Your task to perform on an android device: see creations saved in the google photos Image 0: 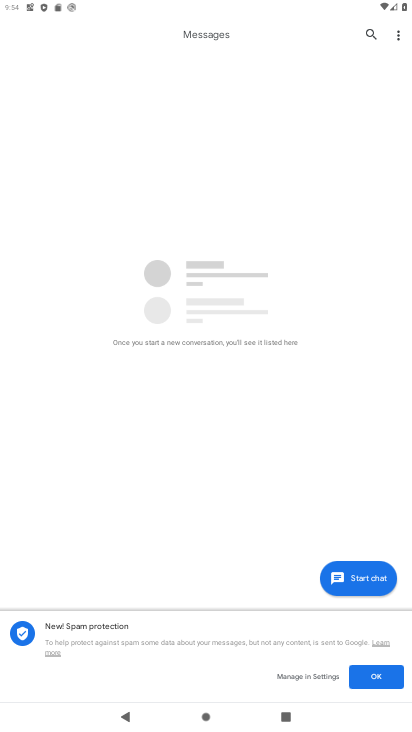
Step 0: press home button
Your task to perform on an android device: see creations saved in the google photos Image 1: 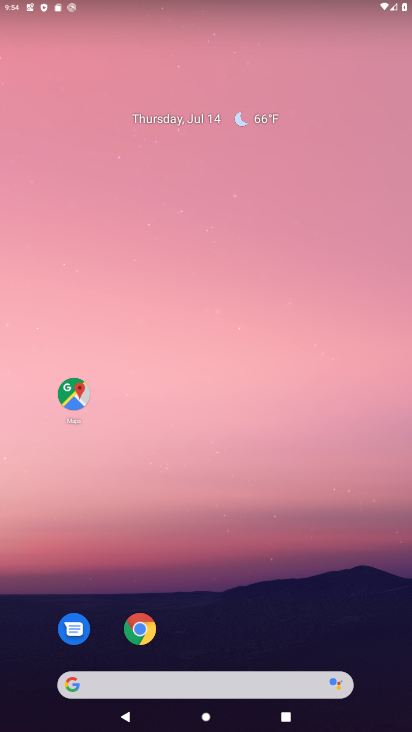
Step 1: drag from (261, 575) to (211, 4)
Your task to perform on an android device: see creations saved in the google photos Image 2: 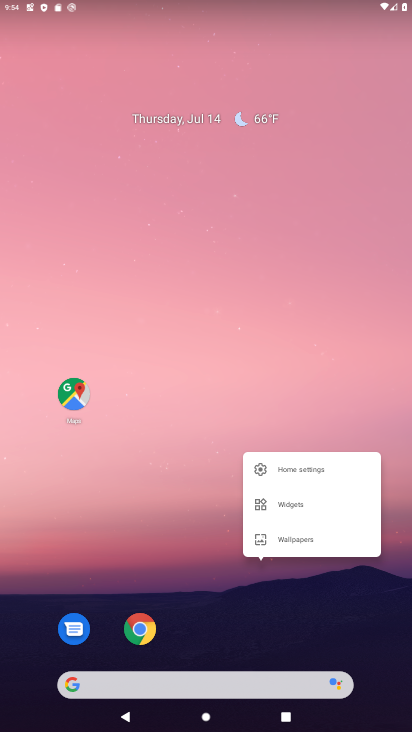
Step 2: drag from (206, 594) to (217, 2)
Your task to perform on an android device: see creations saved in the google photos Image 3: 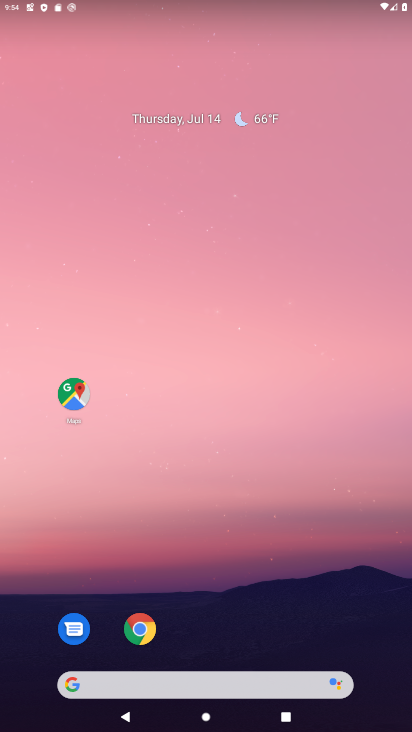
Step 3: drag from (208, 569) to (300, 2)
Your task to perform on an android device: see creations saved in the google photos Image 4: 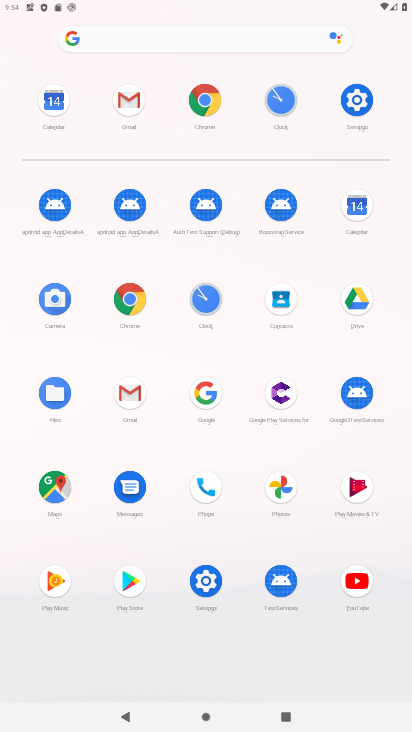
Step 4: click (288, 489)
Your task to perform on an android device: see creations saved in the google photos Image 5: 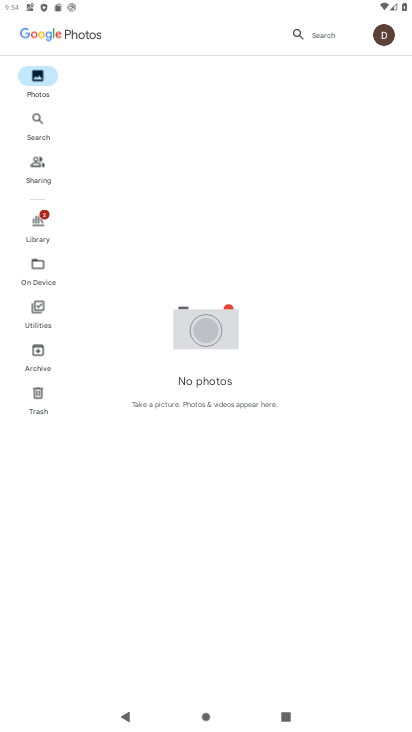
Step 5: click (33, 119)
Your task to perform on an android device: see creations saved in the google photos Image 6: 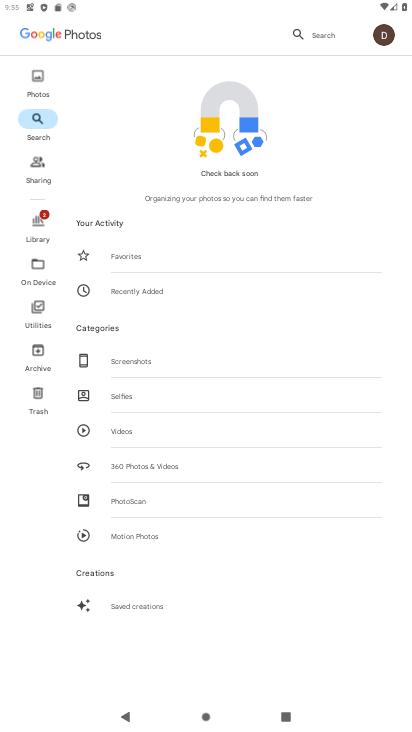
Step 6: click (91, 568)
Your task to perform on an android device: see creations saved in the google photos Image 7: 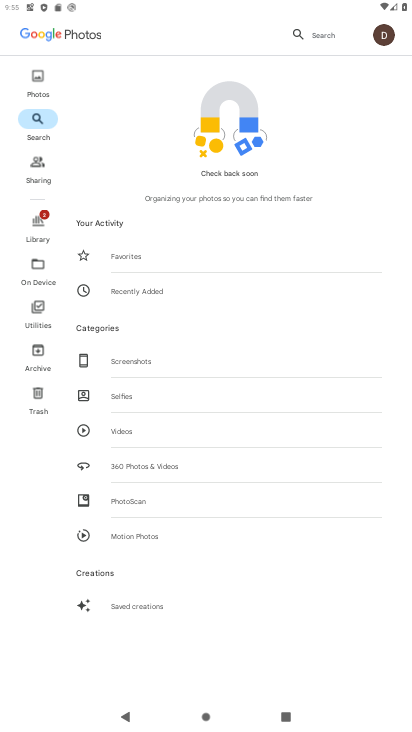
Step 7: click (87, 573)
Your task to perform on an android device: see creations saved in the google photos Image 8: 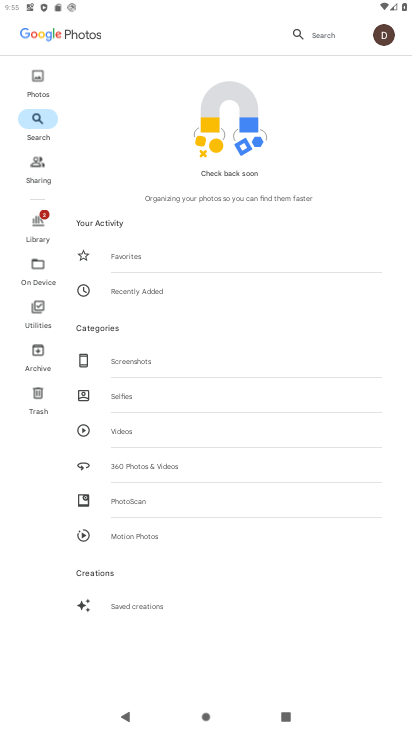
Step 8: click (138, 595)
Your task to perform on an android device: see creations saved in the google photos Image 9: 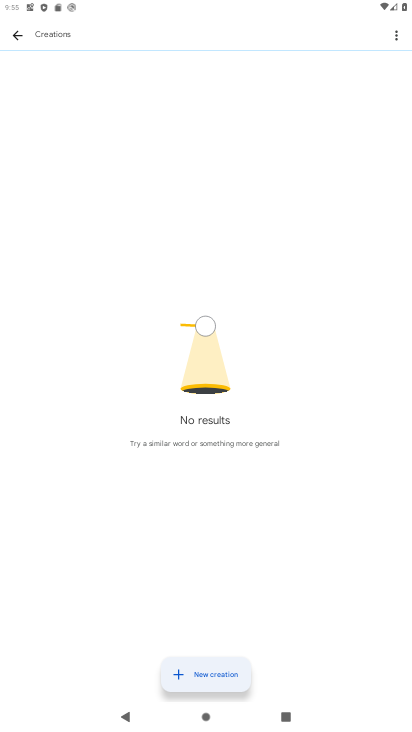
Step 9: task complete